Your task to perform on an android device: turn off picture-in-picture Image 0: 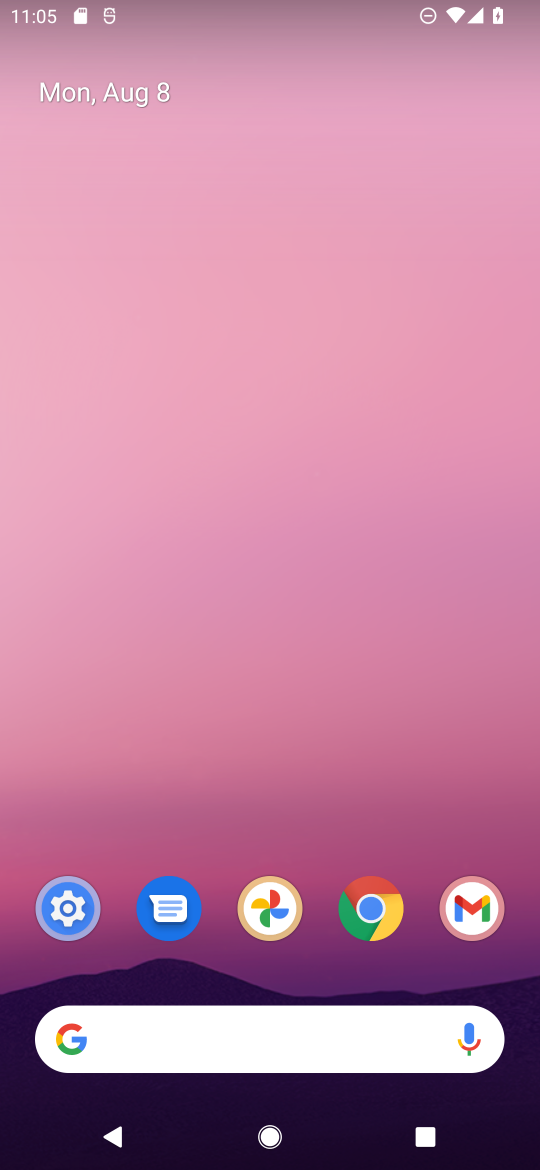
Step 0: press home button
Your task to perform on an android device: turn off picture-in-picture Image 1: 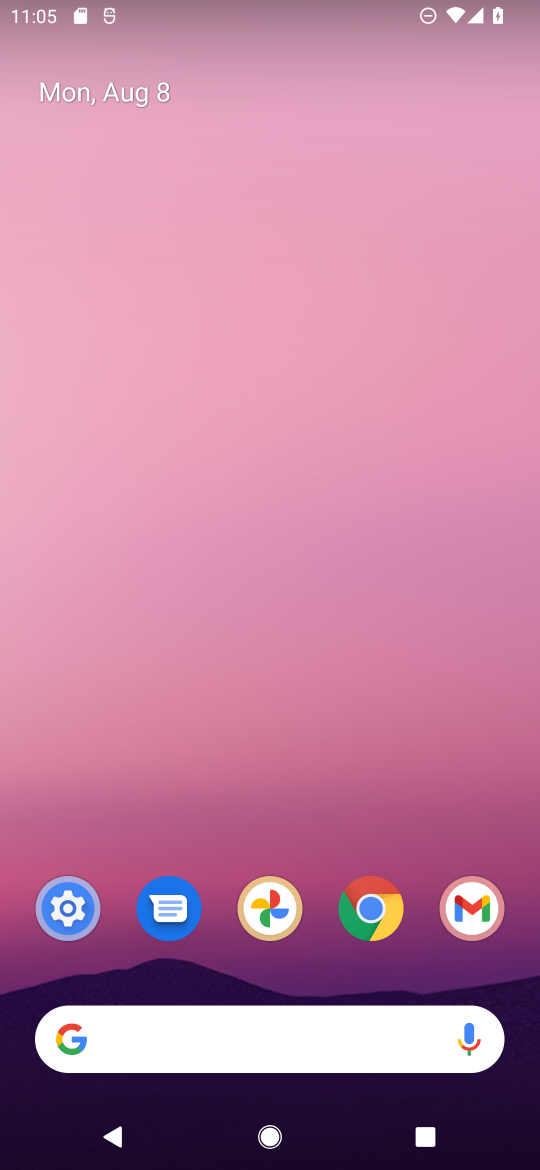
Step 1: click (367, 900)
Your task to perform on an android device: turn off picture-in-picture Image 2: 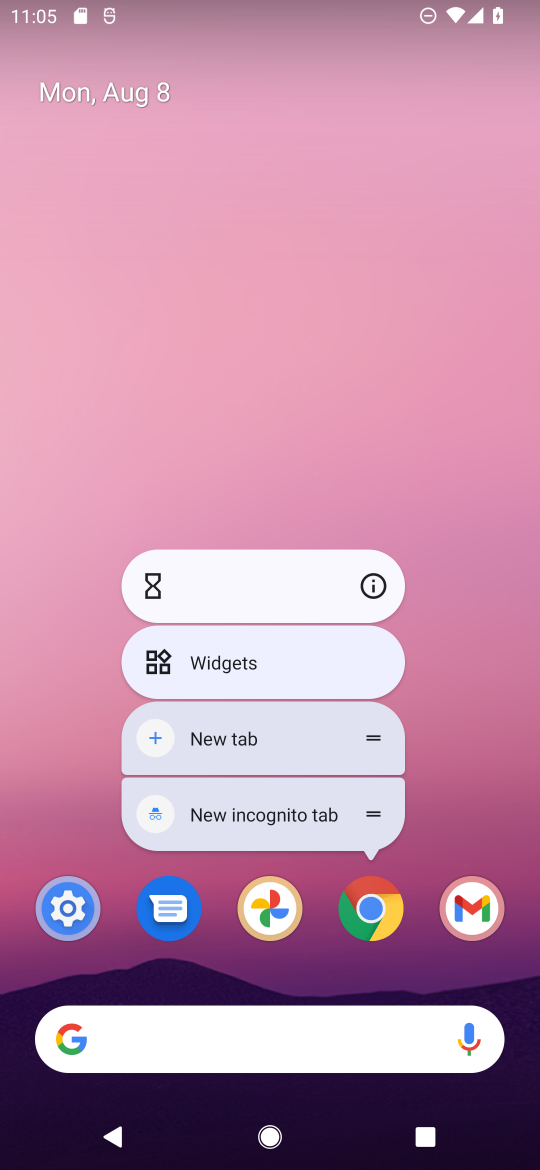
Step 2: click (370, 584)
Your task to perform on an android device: turn off picture-in-picture Image 3: 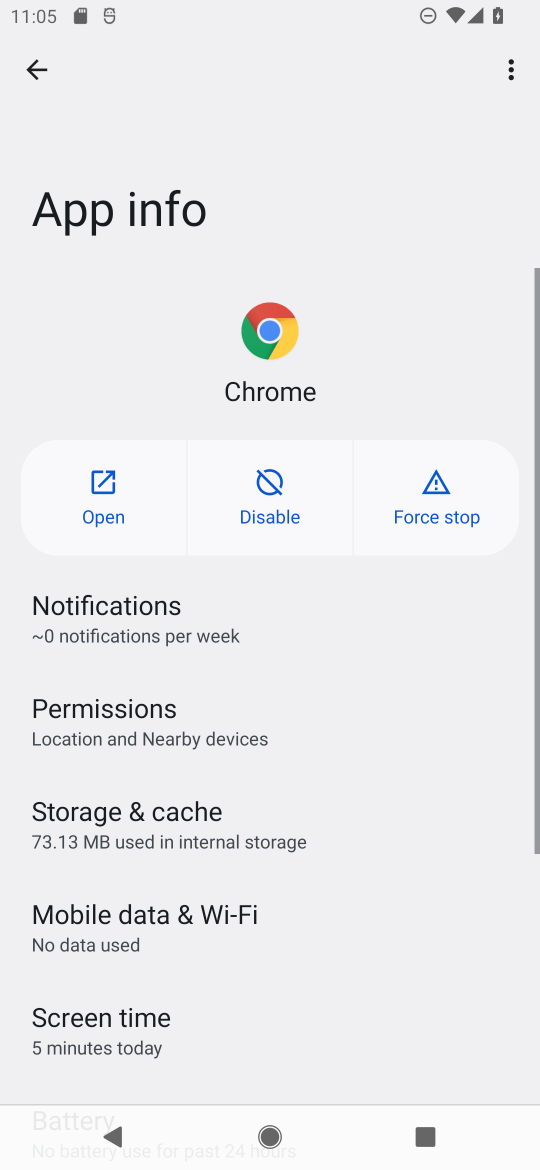
Step 3: drag from (294, 996) to (325, 334)
Your task to perform on an android device: turn off picture-in-picture Image 4: 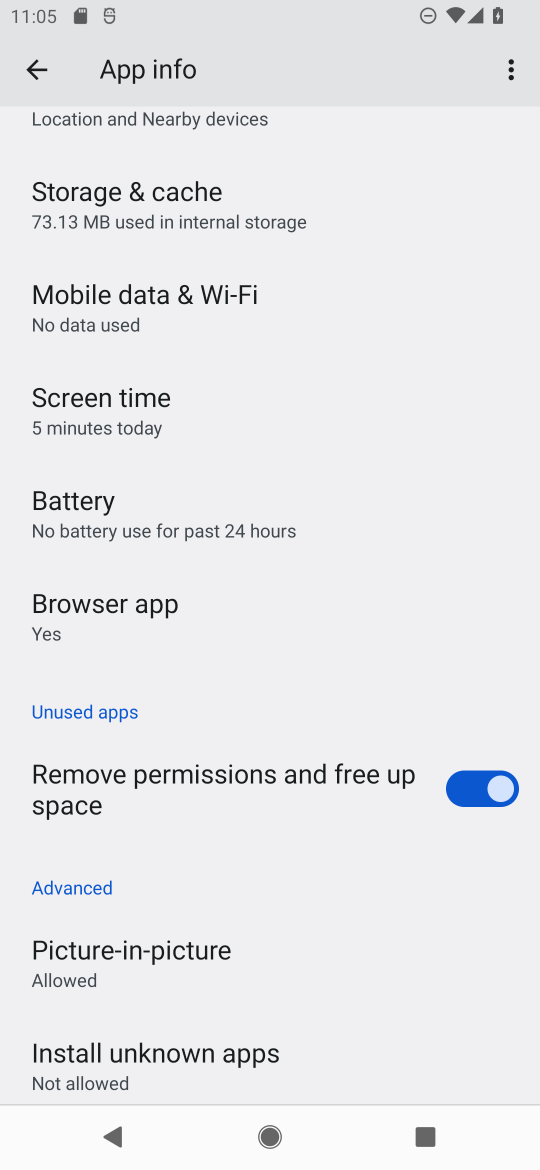
Step 4: click (202, 975)
Your task to perform on an android device: turn off picture-in-picture Image 5: 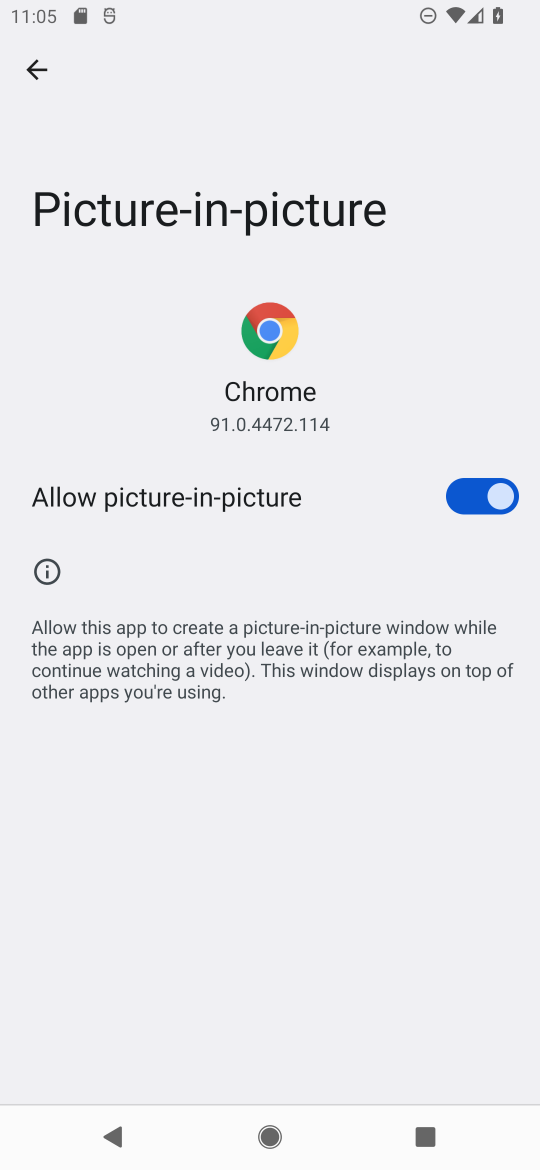
Step 5: click (464, 492)
Your task to perform on an android device: turn off picture-in-picture Image 6: 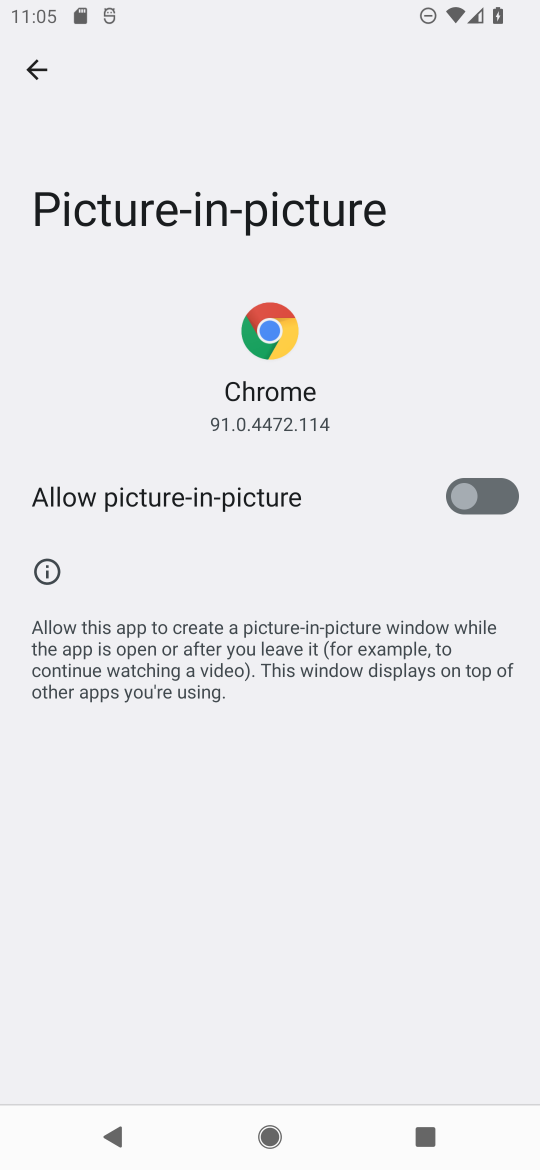
Step 6: task complete